Your task to perform on an android device: turn off translation in the chrome app Image 0: 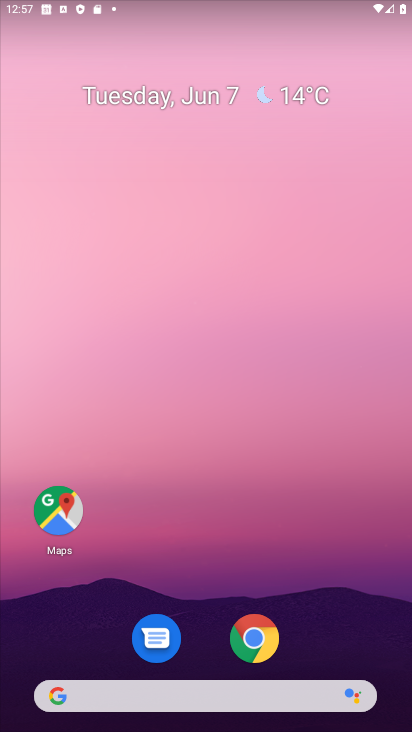
Step 0: drag from (222, 651) to (209, 270)
Your task to perform on an android device: turn off translation in the chrome app Image 1: 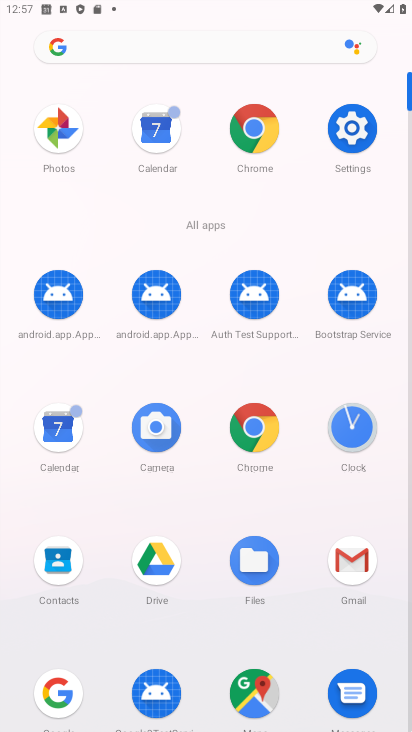
Step 1: click (255, 124)
Your task to perform on an android device: turn off translation in the chrome app Image 2: 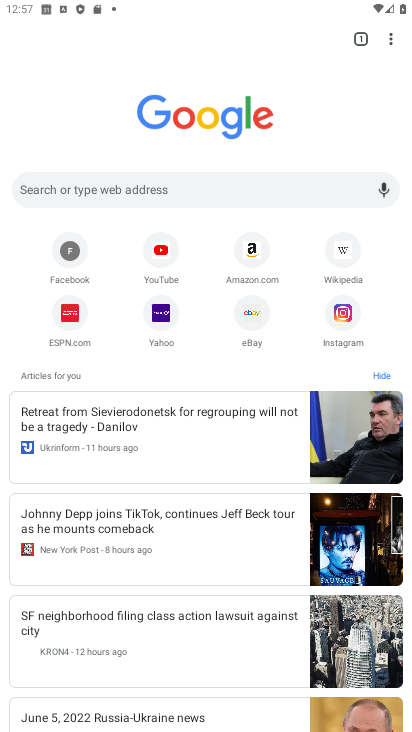
Step 2: click (390, 40)
Your task to perform on an android device: turn off translation in the chrome app Image 3: 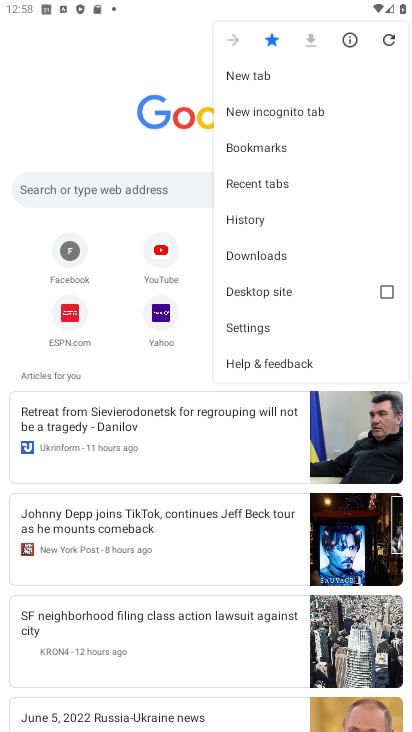
Step 3: click (265, 332)
Your task to perform on an android device: turn off translation in the chrome app Image 4: 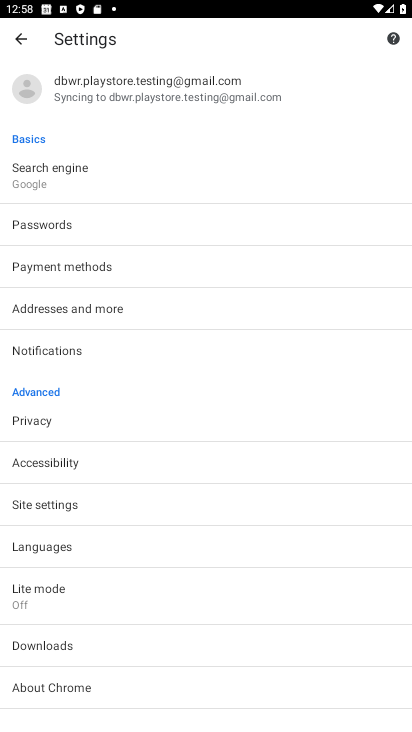
Step 4: click (82, 550)
Your task to perform on an android device: turn off translation in the chrome app Image 5: 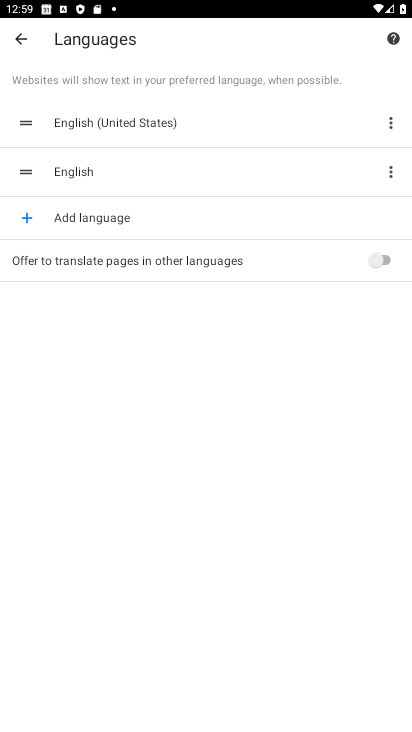
Step 5: task complete